Your task to perform on an android device: Open Chrome and go to settings Image 0: 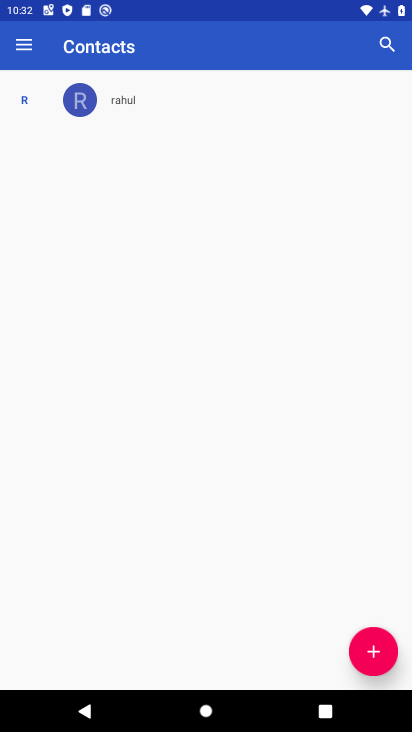
Step 0: press home button
Your task to perform on an android device: Open Chrome and go to settings Image 1: 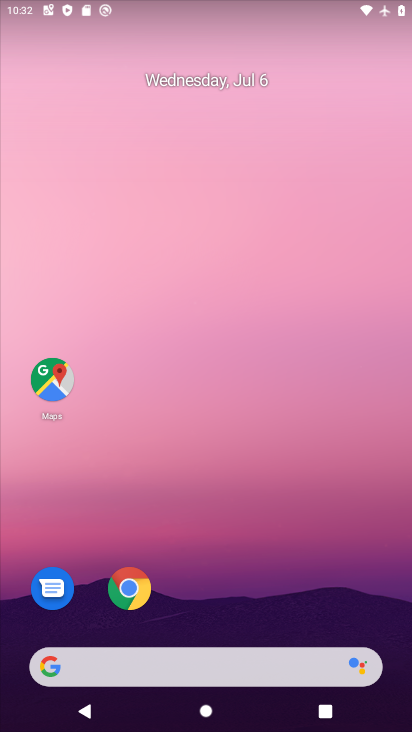
Step 1: drag from (215, 583) to (224, 282)
Your task to perform on an android device: Open Chrome and go to settings Image 2: 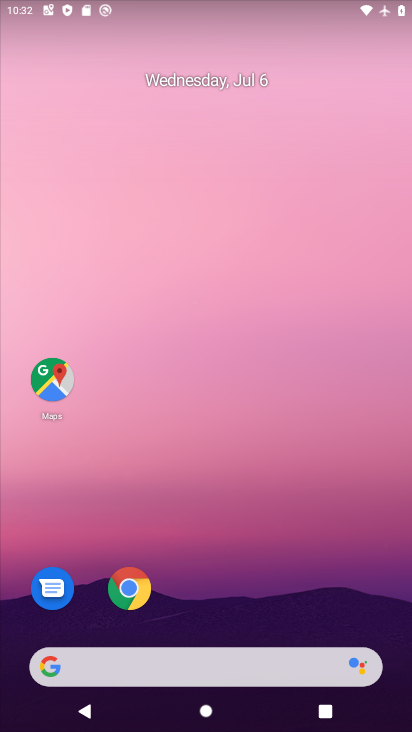
Step 2: drag from (285, 633) to (317, 239)
Your task to perform on an android device: Open Chrome and go to settings Image 3: 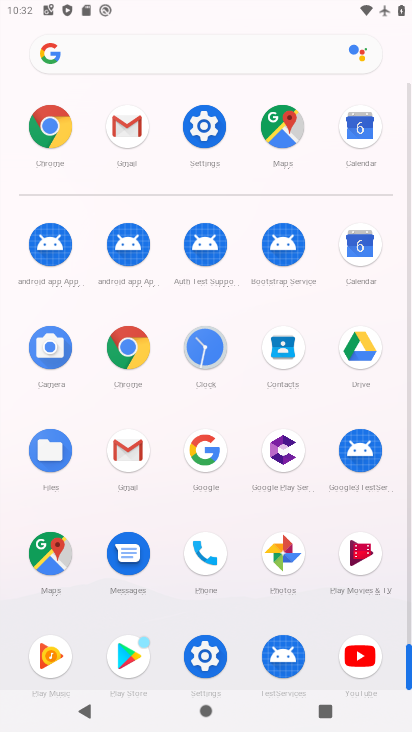
Step 3: click (132, 353)
Your task to perform on an android device: Open Chrome and go to settings Image 4: 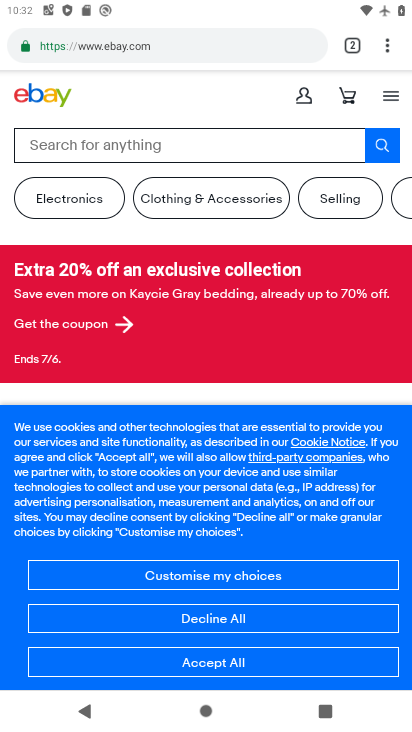
Step 4: click (385, 51)
Your task to perform on an android device: Open Chrome and go to settings Image 5: 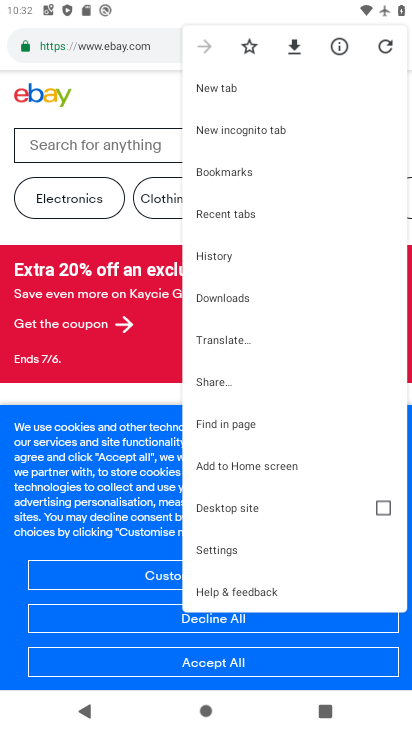
Step 5: click (234, 550)
Your task to perform on an android device: Open Chrome and go to settings Image 6: 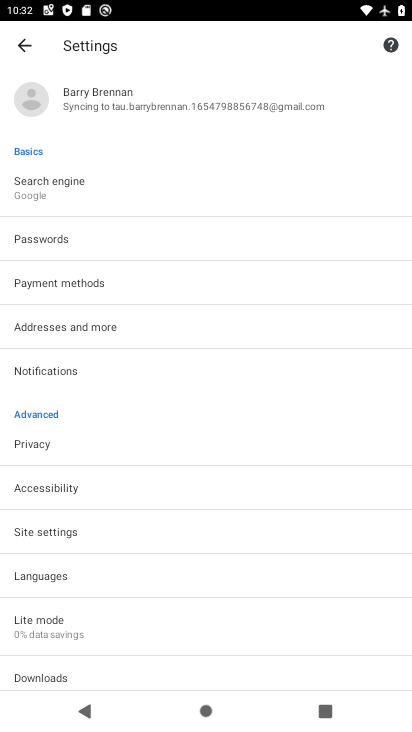
Step 6: task complete